Your task to perform on an android device: Go to battery settings Image 0: 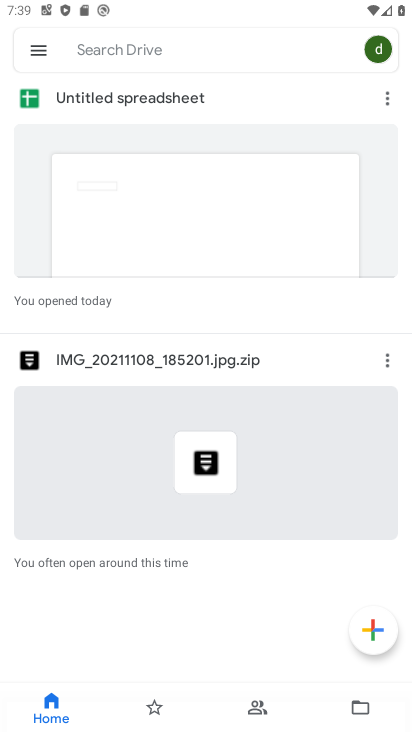
Step 0: press home button
Your task to perform on an android device: Go to battery settings Image 1: 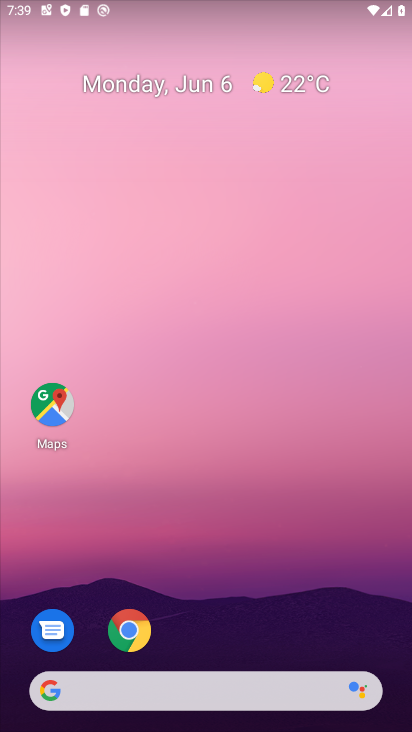
Step 1: drag from (123, 731) to (167, 64)
Your task to perform on an android device: Go to battery settings Image 2: 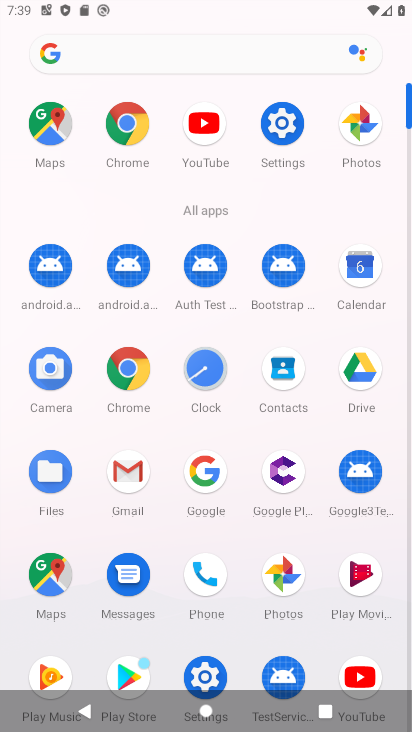
Step 2: click (284, 127)
Your task to perform on an android device: Go to battery settings Image 3: 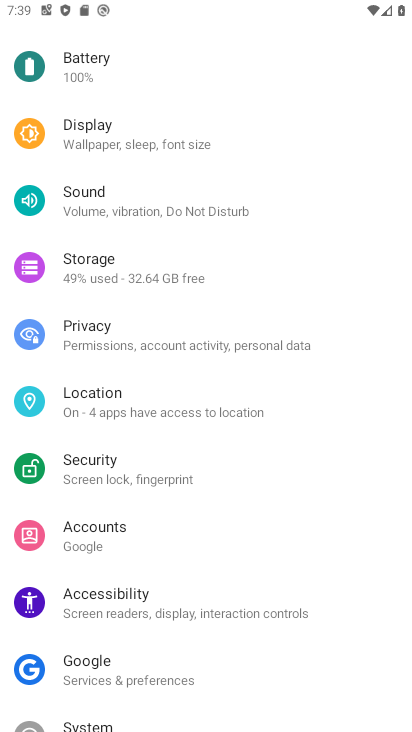
Step 3: click (103, 75)
Your task to perform on an android device: Go to battery settings Image 4: 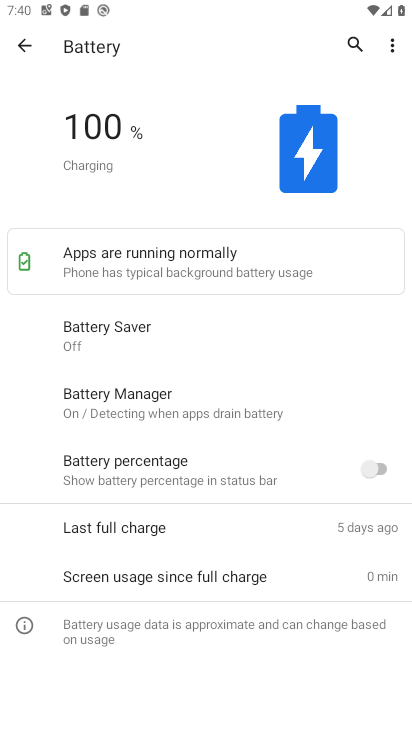
Step 4: task complete